Your task to perform on an android device: check battery use Image 0: 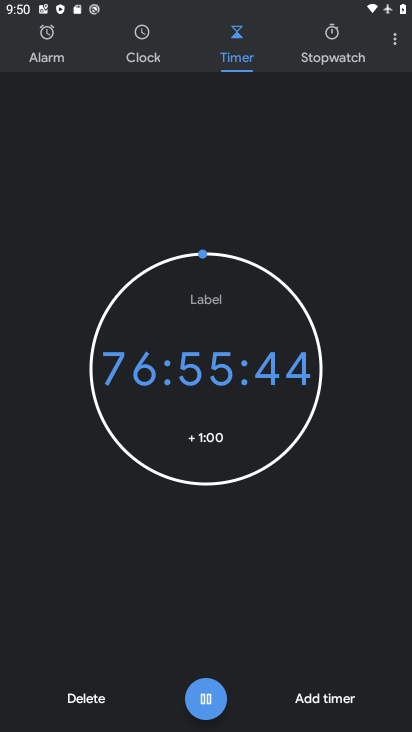
Step 0: press home button
Your task to perform on an android device: check battery use Image 1: 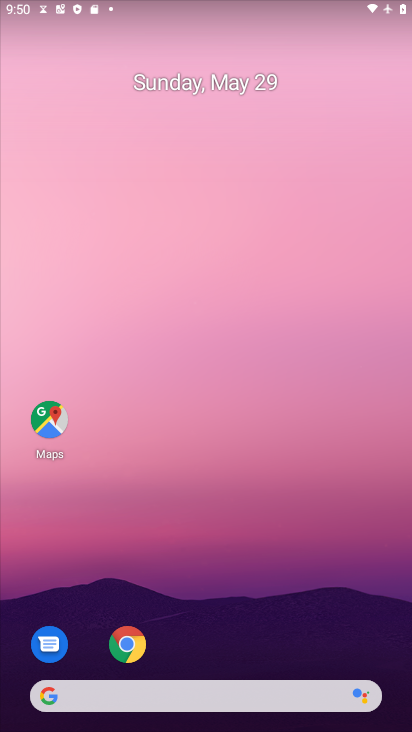
Step 1: drag from (279, 634) to (226, 151)
Your task to perform on an android device: check battery use Image 2: 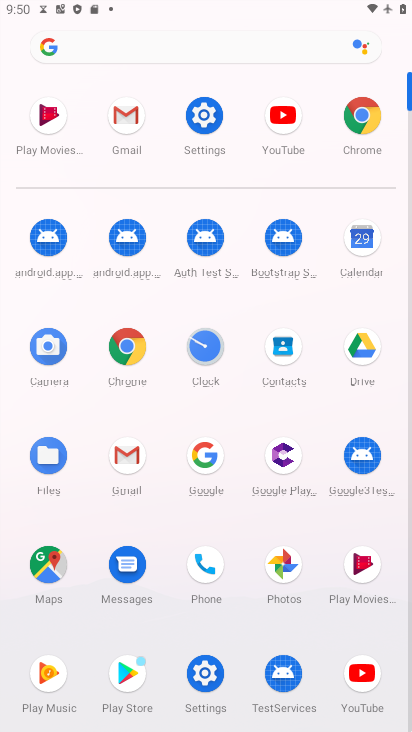
Step 2: click (211, 105)
Your task to perform on an android device: check battery use Image 3: 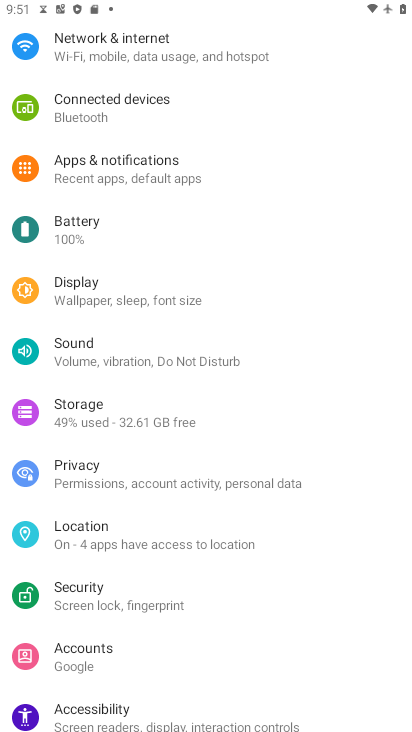
Step 3: click (91, 233)
Your task to perform on an android device: check battery use Image 4: 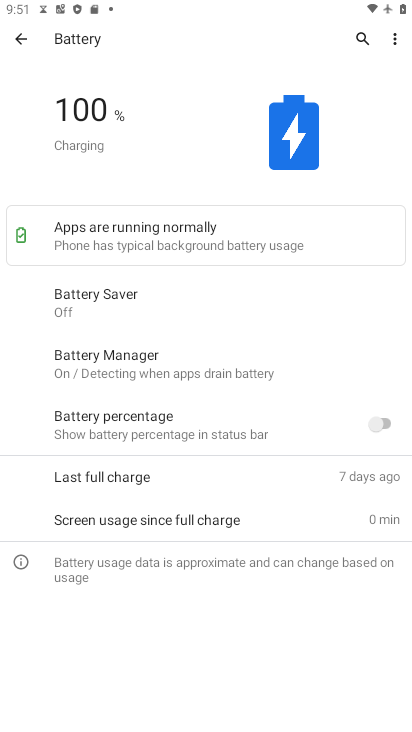
Step 4: task complete